Your task to perform on an android device: Show me popular videos on Youtube Image 0: 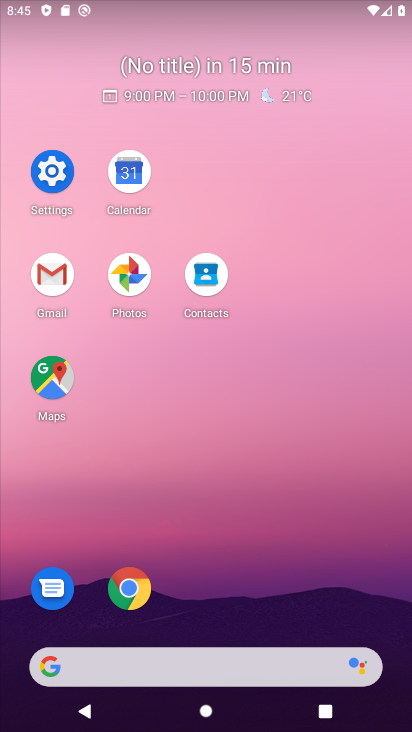
Step 0: drag from (350, 570) to (321, 107)
Your task to perform on an android device: Show me popular videos on Youtube Image 1: 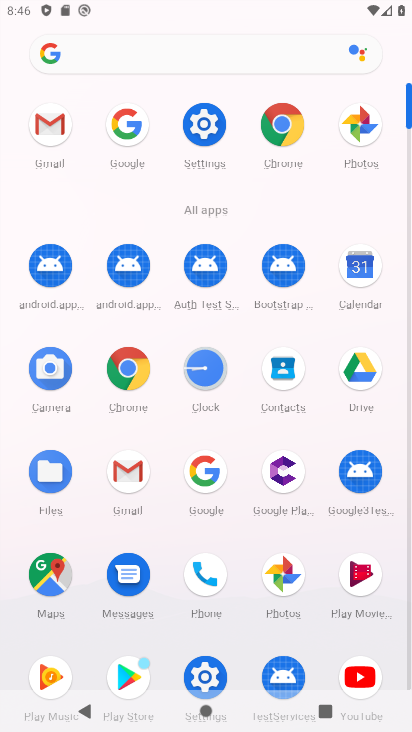
Step 1: drag from (349, 677) to (154, 381)
Your task to perform on an android device: Show me popular videos on Youtube Image 2: 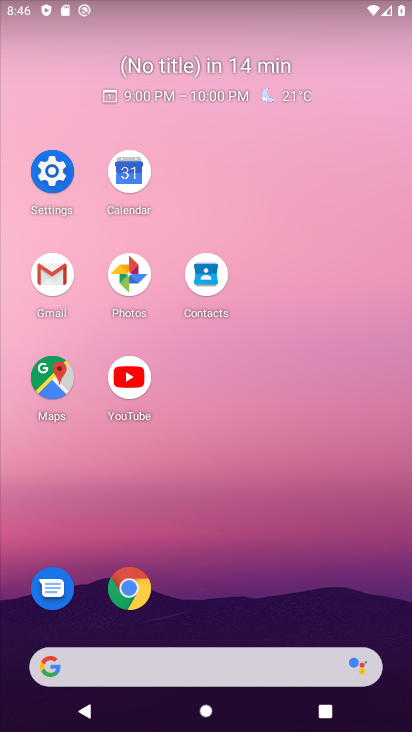
Step 2: click (124, 372)
Your task to perform on an android device: Show me popular videos on Youtube Image 3: 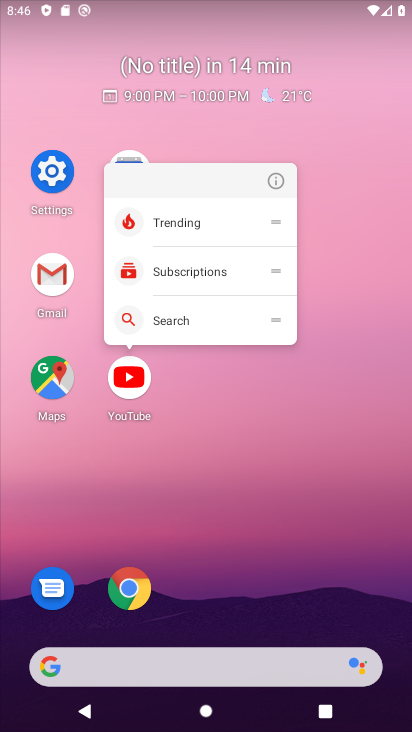
Step 3: click (124, 371)
Your task to perform on an android device: Show me popular videos on Youtube Image 4: 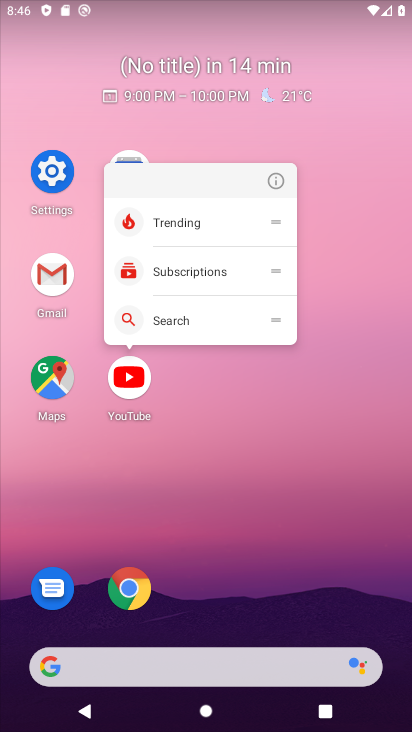
Step 4: click (124, 372)
Your task to perform on an android device: Show me popular videos on Youtube Image 5: 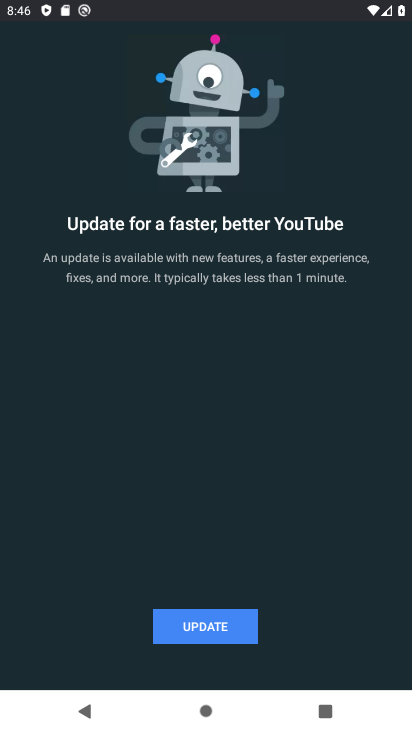
Step 5: click (191, 644)
Your task to perform on an android device: Show me popular videos on Youtube Image 6: 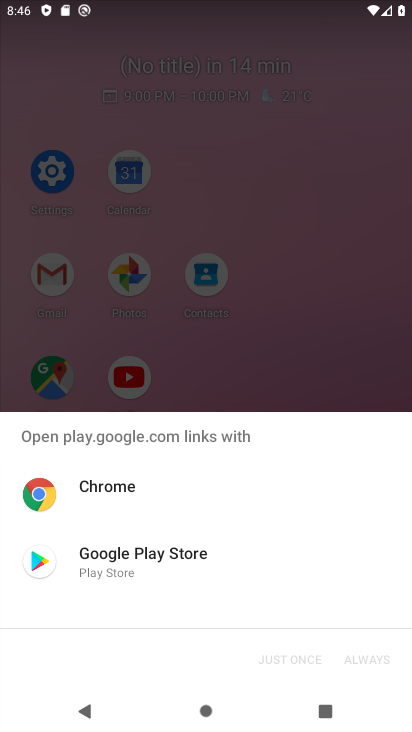
Step 6: drag from (149, 542) to (250, 542)
Your task to perform on an android device: Show me popular videos on Youtube Image 7: 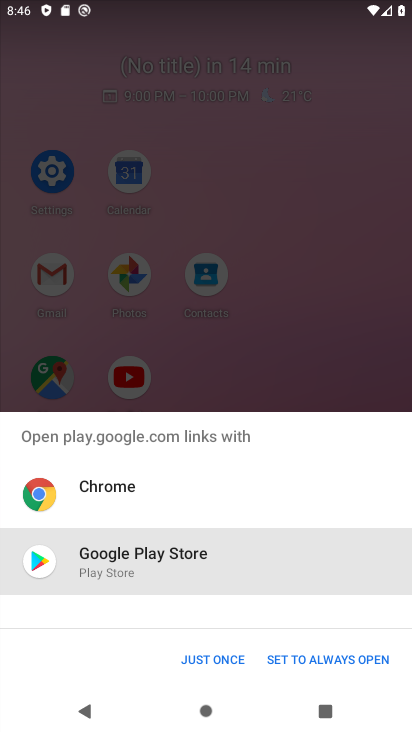
Step 7: click (250, 542)
Your task to perform on an android device: Show me popular videos on Youtube Image 8: 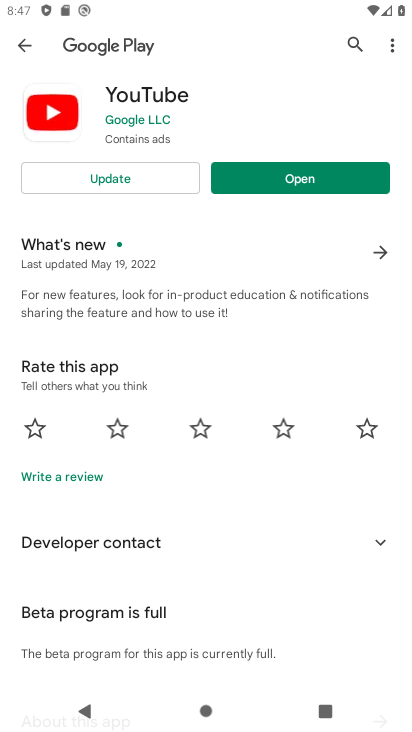
Step 8: click (89, 174)
Your task to perform on an android device: Show me popular videos on Youtube Image 9: 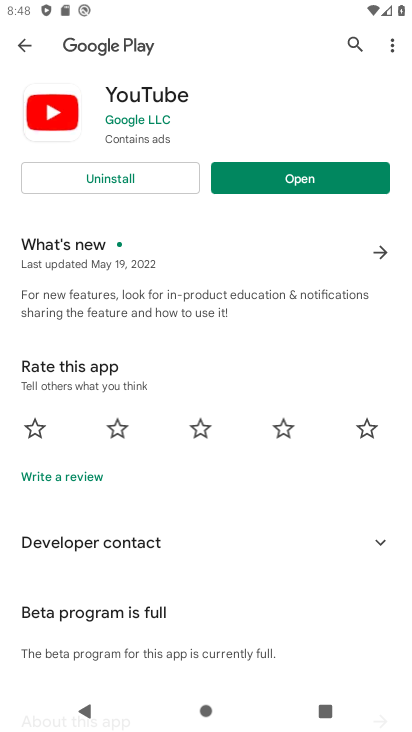
Step 9: click (281, 181)
Your task to perform on an android device: Show me popular videos on Youtube Image 10: 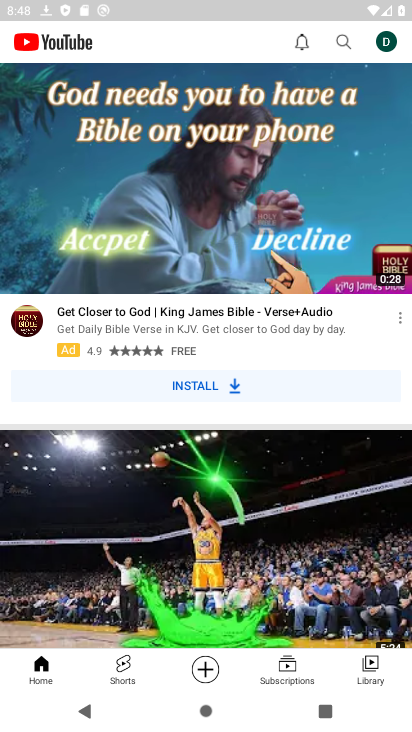
Step 10: task complete